Your task to perform on an android device: Go to Amazon Image 0: 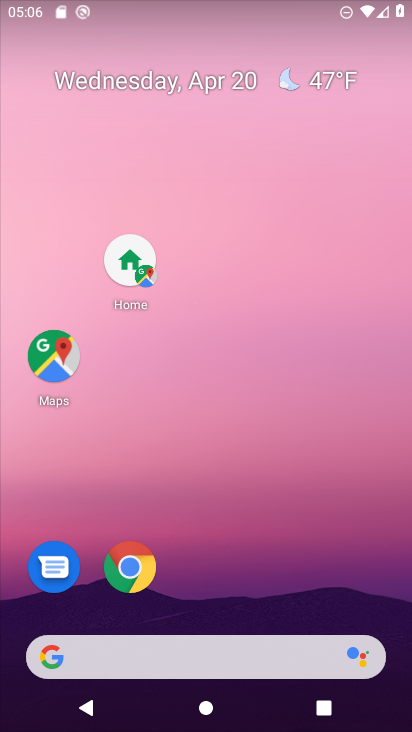
Step 0: click (127, 561)
Your task to perform on an android device: Go to Amazon Image 1: 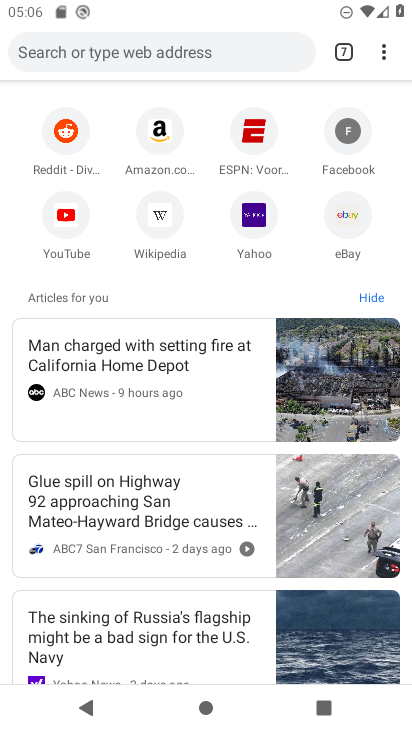
Step 1: click (147, 126)
Your task to perform on an android device: Go to Amazon Image 2: 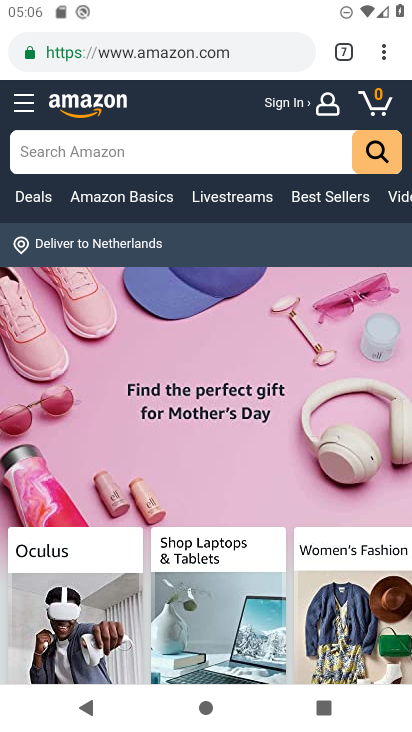
Step 2: task complete